Your task to perform on an android device: Open calendar and show me the fourth week of next month Image 0: 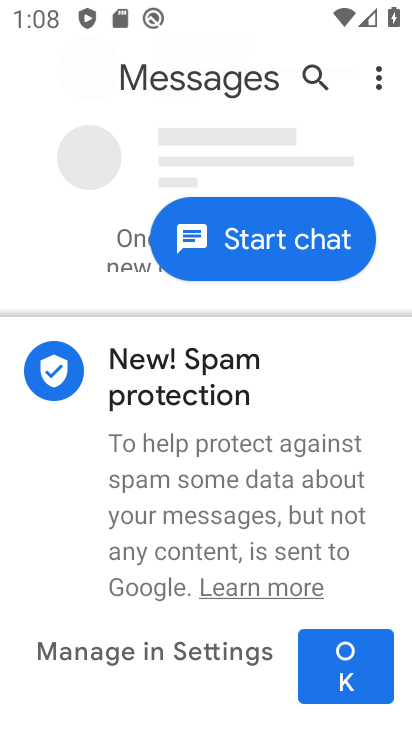
Step 0: press back button
Your task to perform on an android device: Open calendar and show me the fourth week of next month Image 1: 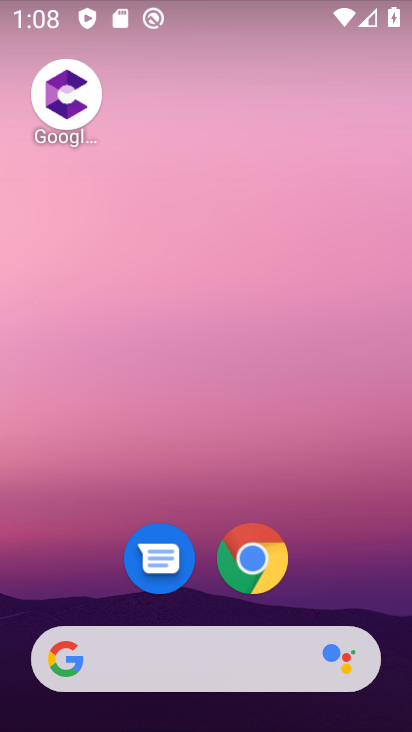
Step 1: drag from (212, 566) to (313, 35)
Your task to perform on an android device: Open calendar and show me the fourth week of next month Image 2: 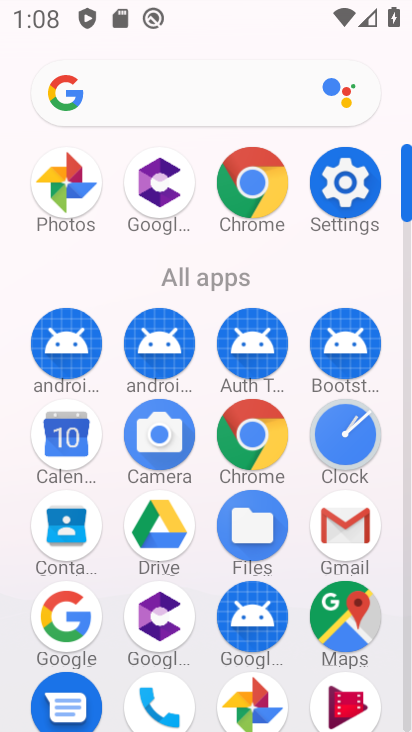
Step 2: click (57, 439)
Your task to perform on an android device: Open calendar and show me the fourth week of next month Image 3: 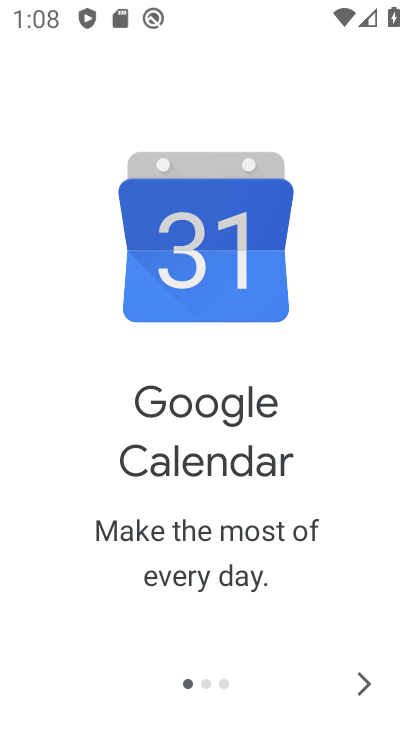
Step 3: click (361, 686)
Your task to perform on an android device: Open calendar and show me the fourth week of next month Image 4: 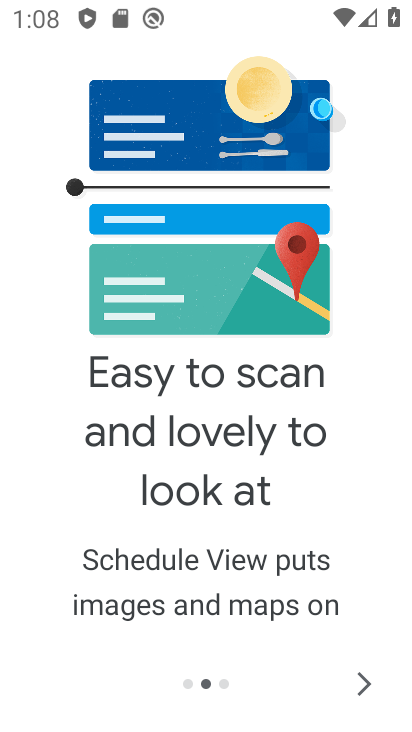
Step 4: click (363, 684)
Your task to perform on an android device: Open calendar and show me the fourth week of next month Image 5: 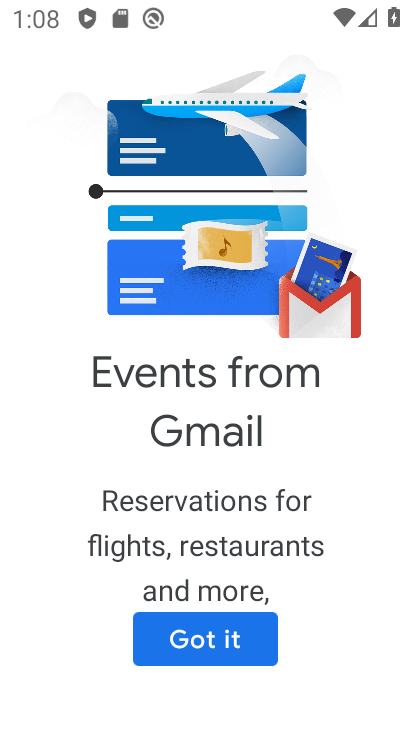
Step 5: click (218, 642)
Your task to perform on an android device: Open calendar and show me the fourth week of next month Image 6: 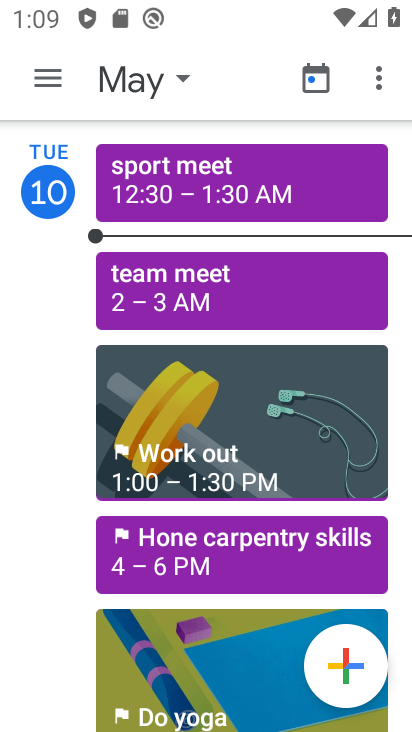
Step 6: click (157, 71)
Your task to perform on an android device: Open calendar and show me the fourth week of next month Image 7: 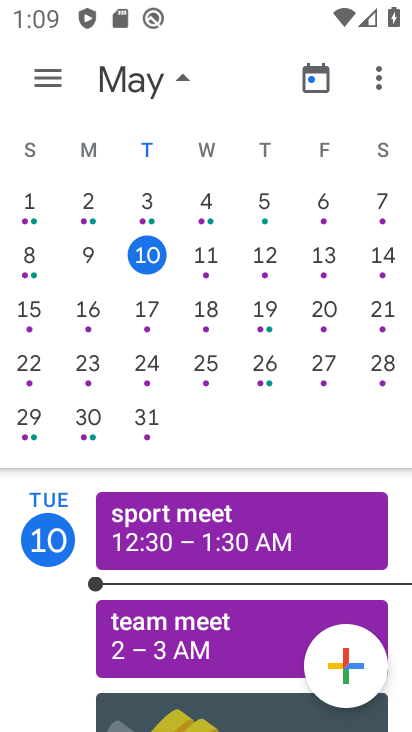
Step 7: drag from (372, 327) to (21, 301)
Your task to perform on an android device: Open calendar and show me the fourth week of next month Image 8: 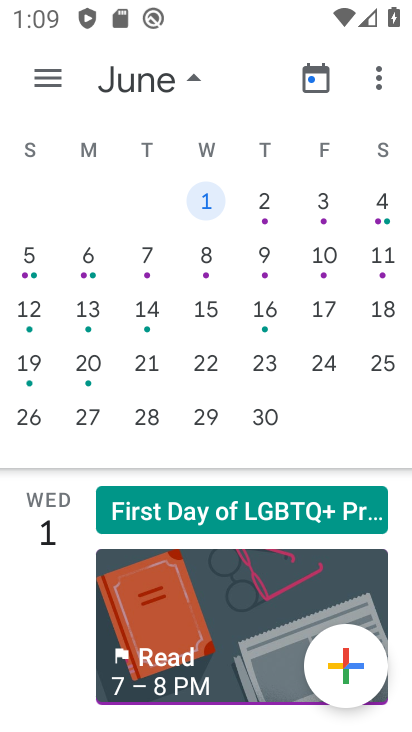
Step 8: click (88, 358)
Your task to perform on an android device: Open calendar and show me the fourth week of next month Image 9: 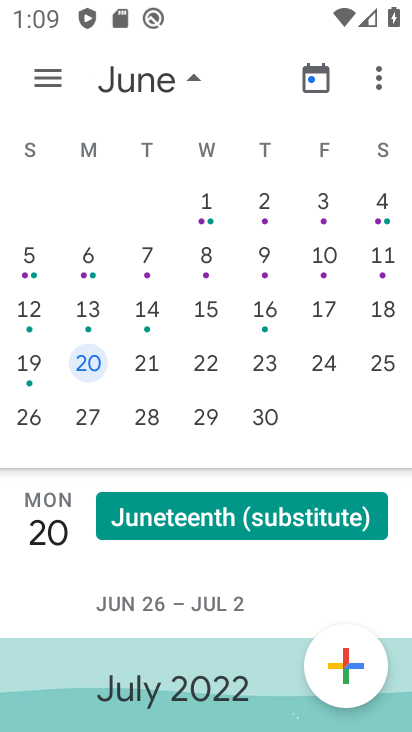
Step 9: task complete